Your task to perform on an android device: turn on notifications settings in the gmail app Image 0: 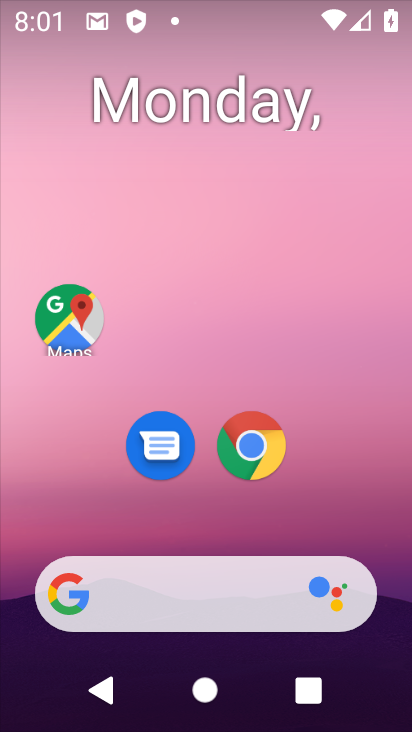
Step 0: drag from (156, 665) to (113, 28)
Your task to perform on an android device: turn on notifications settings in the gmail app Image 1: 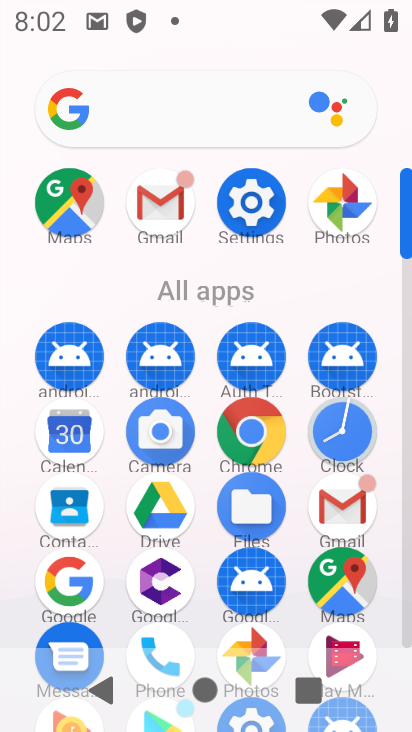
Step 1: click (162, 222)
Your task to perform on an android device: turn on notifications settings in the gmail app Image 2: 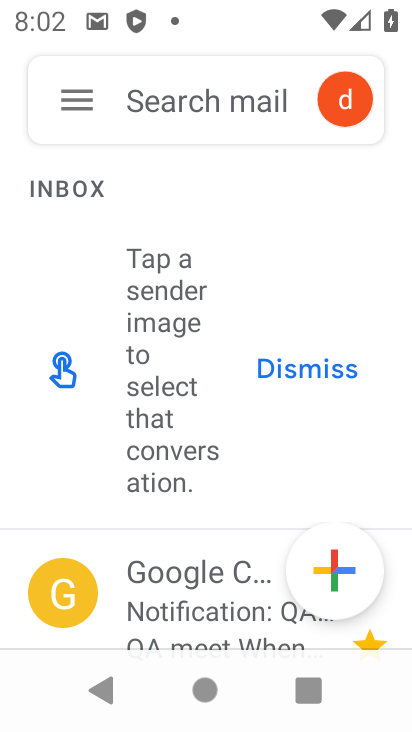
Step 2: drag from (181, 538) to (186, 33)
Your task to perform on an android device: turn on notifications settings in the gmail app Image 3: 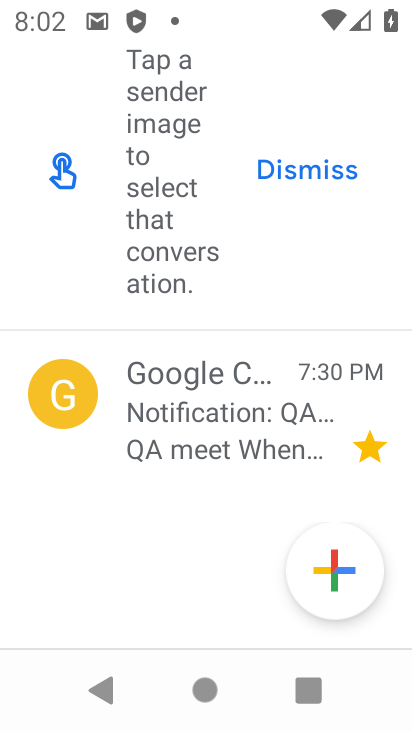
Step 3: press home button
Your task to perform on an android device: turn on notifications settings in the gmail app Image 4: 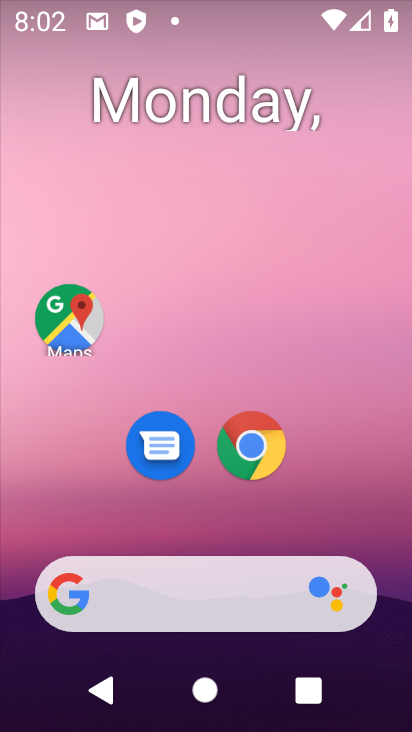
Step 4: drag from (243, 659) to (318, 160)
Your task to perform on an android device: turn on notifications settings in the gmail app Image 5: 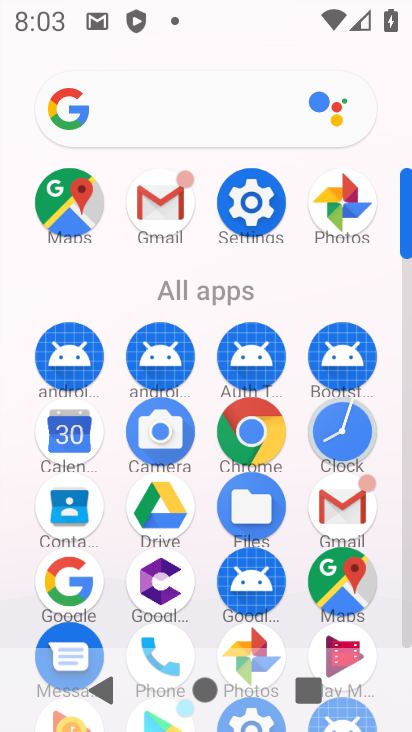
Step 5: click (163, 209)
Your task to perform on an android device: turn on notifications settings in the gmail app Image 6: 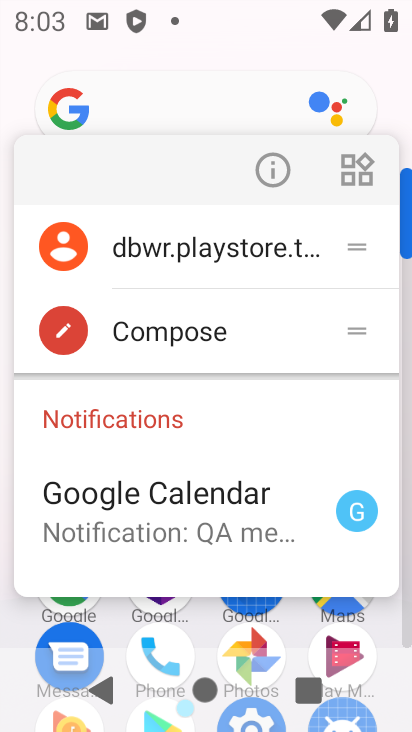
Step 6: click (269, 175)
Your task to perform on an android device: turn on notifications settings in the gmail app Image 7: 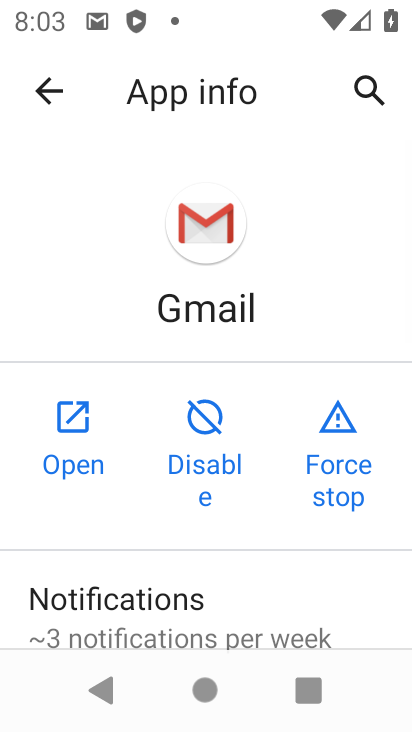
Step 7: click (242, 616)
Your task to perform on an android device: turn on notifications settings in the gmail app Image 8: 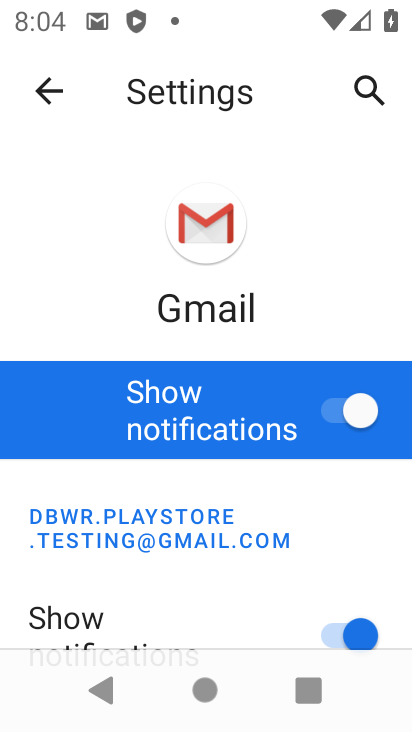
Step 8: task complete